Your task to perform on an android device: delete a single message in the gmail app Image 0: 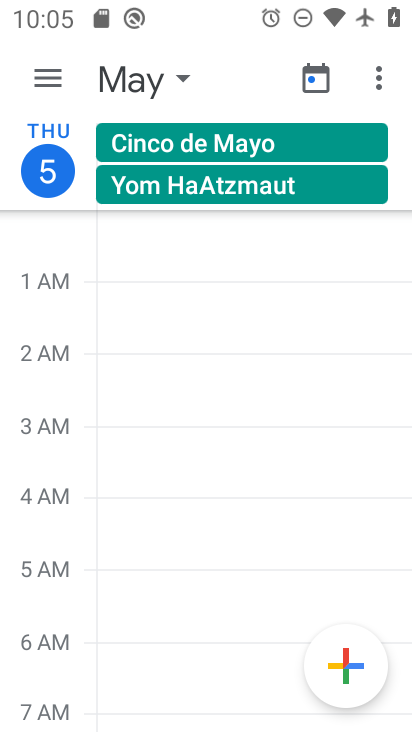
Step 0: press home button
Your task to perform on an android device: delete a single message in the gmail app Image 1: 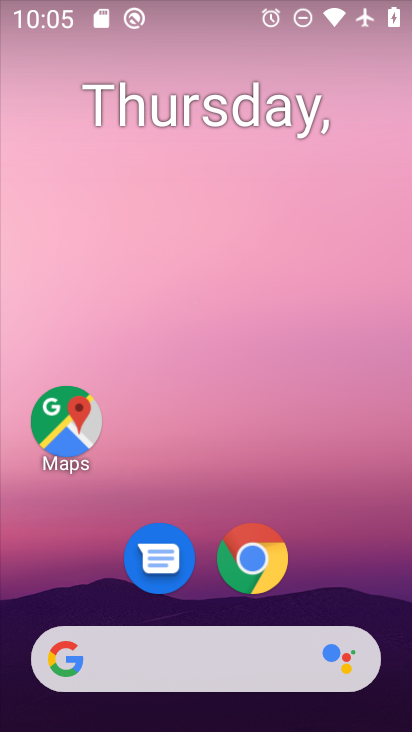
Step 1: drag from (368, 605) to (274, 142)
Your task to perform on an android device: delete a single message in the gmail app Image 2: 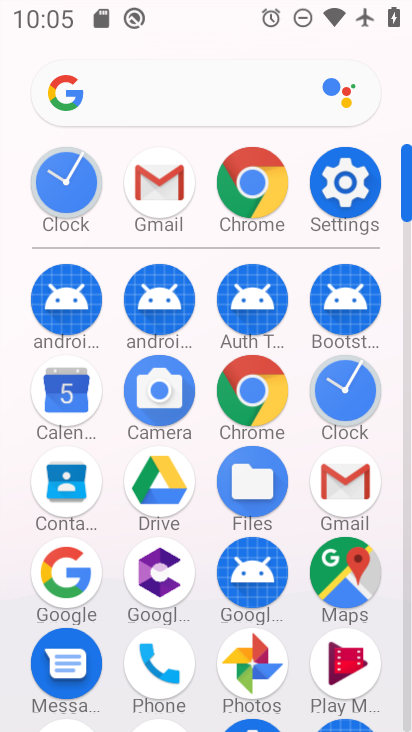
Step 2: click (405, 697)
Your task to perform on an android device: delete a single message in the gmail app Image 3: 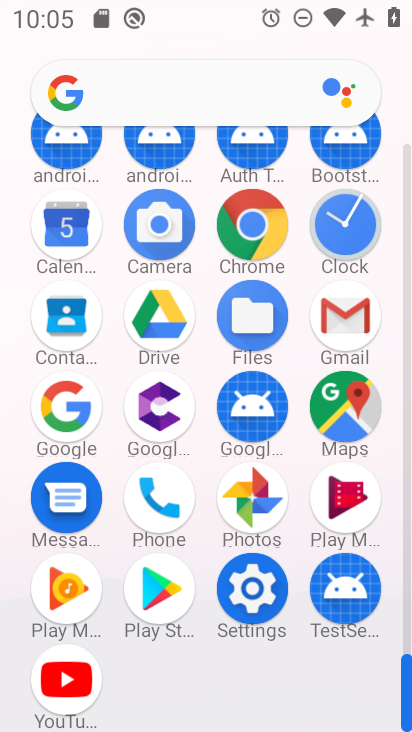
Step 3: click (344, 320)
Your task to perform on an android device: delete a single message in the gmail app Image 4: 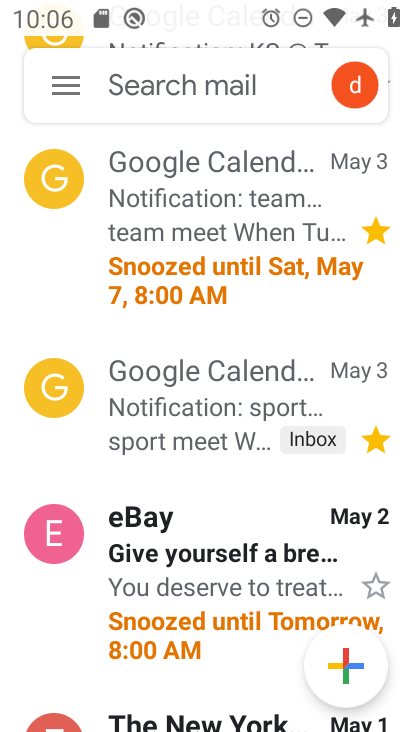
Step 4: click (202, 423)
Your task to perform on an android device: delete a single message in the gmail app Image 5: 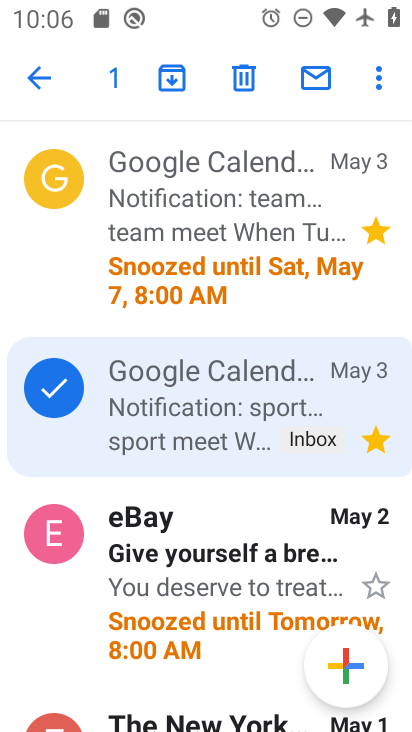
Step 5: click (241, 76)
Your task to perform on an android device: delete a single message in the gmail app Image 6: 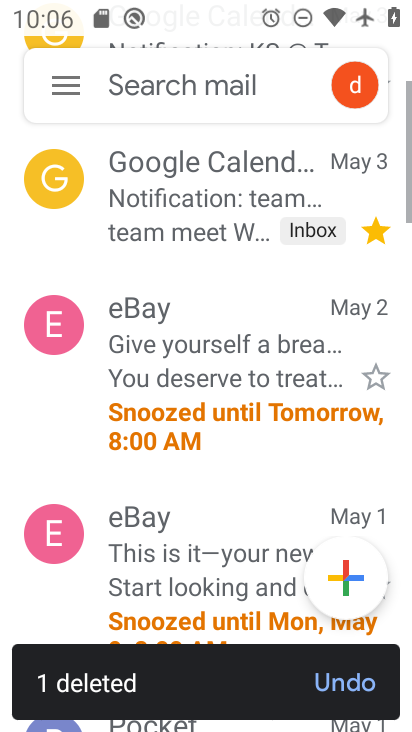
Step 6: task complete